Your task to perform on an android device: What's on my calendar today? Image 0: 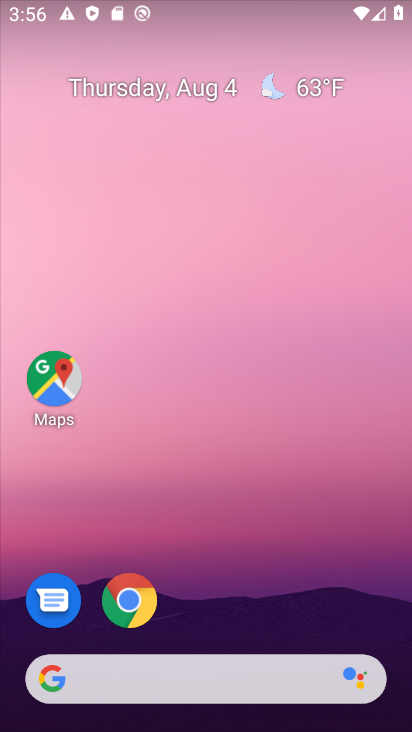
Step 0: drag from (325, 618) to (312, 144)
Your task to perform on an android device: What's on my calendar today? Image 1: 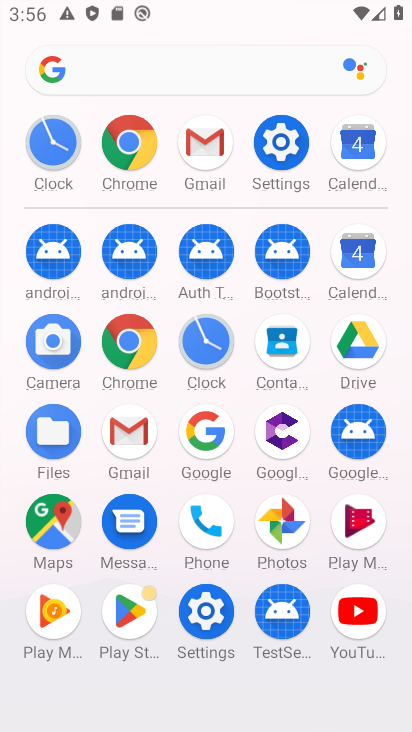
Step 1: click (369, 247)
Your task to perform on an android device: What's on my calendar today? Image 2: 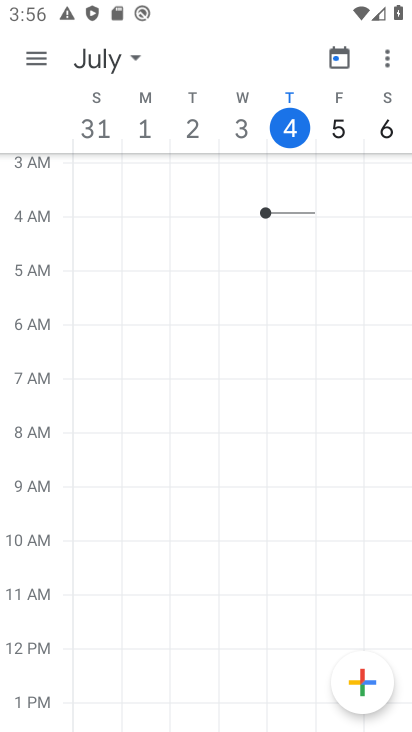
Step 2: click (298, 117)
Your task to perform on an android device: What's on my calendar today? Image 3: 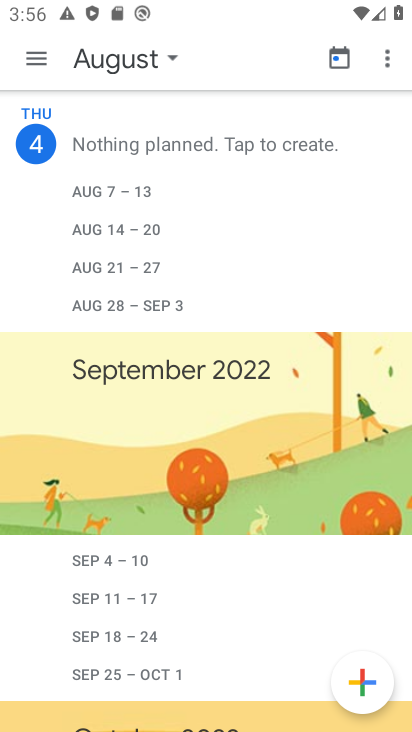
Step 3: task complete